Your task to perform on an android device: Open calendar and show me the fourth week of next month Image 0: 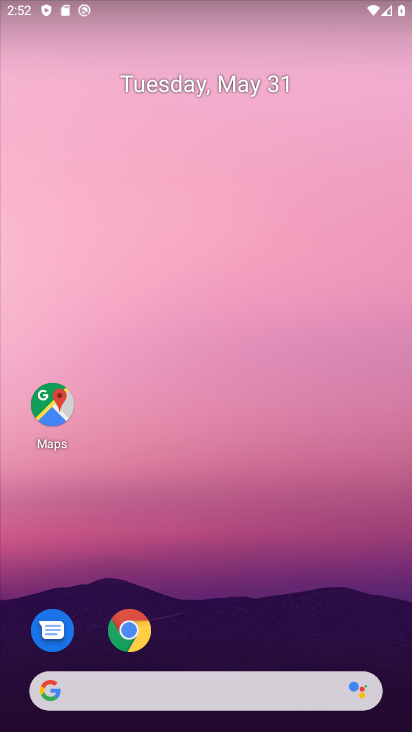
Step 0: click (235, 97)
Your task to perform on an android device: Open calendar and show me the fourth week of next month Image 1: 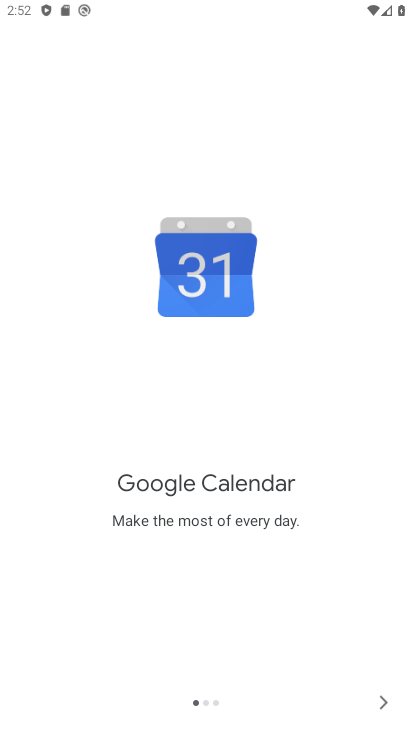
Step 1: click (379, 692)
Your task to perform on an android device: Open calendar and show me the fourth week of next month Image 2: 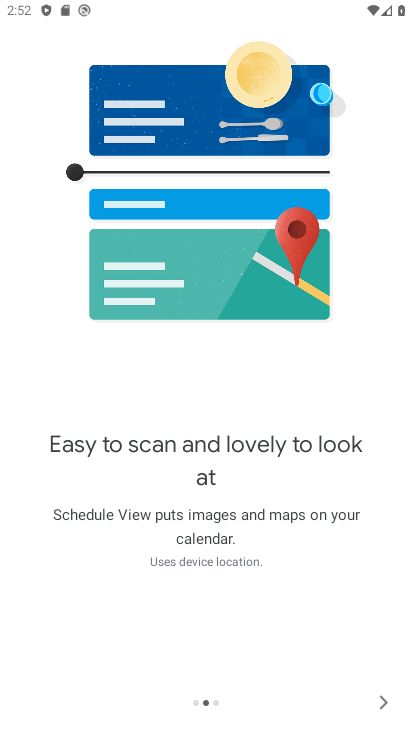
Step 2: click (379, 692)
Your task to perform on an android device: Open calendar and show me the fourth week of next month Image 3: 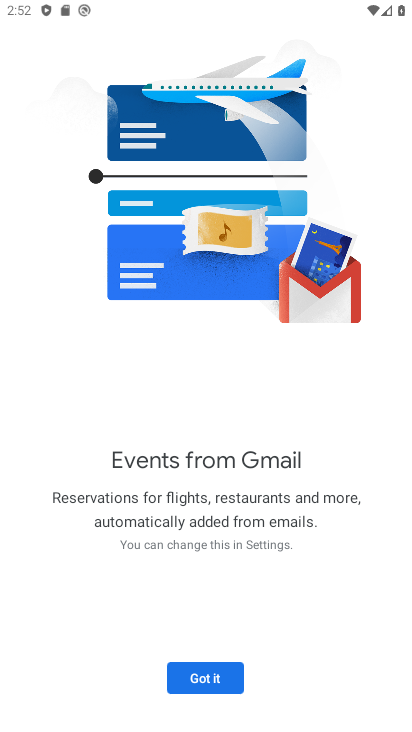
Step 3: click (192, 667)
Your task to perform on an android device: Open calendar and show me the fourth week of next month Image 4: 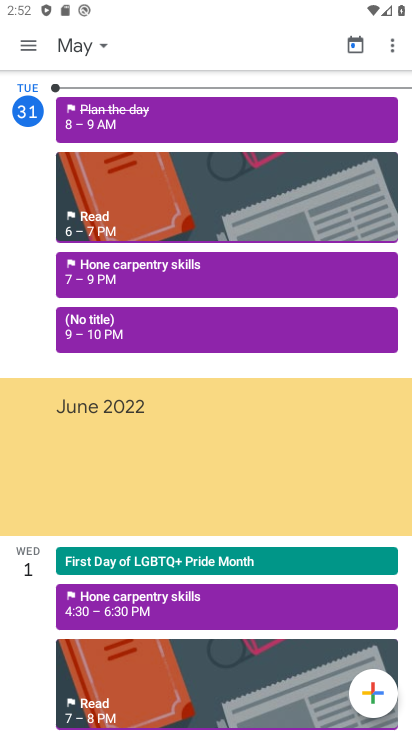
Step 4: click (37, 51)
Your task to perform on an android device: Open calendar and show me the fourth week of next month Image 5: 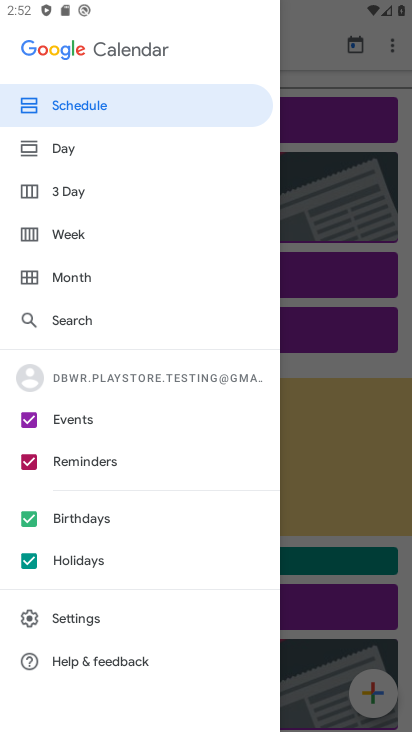
Step 5: click (70, 282)
Your task to perform on an android device: Open calendar and show me the fourth week of next month Image 6: 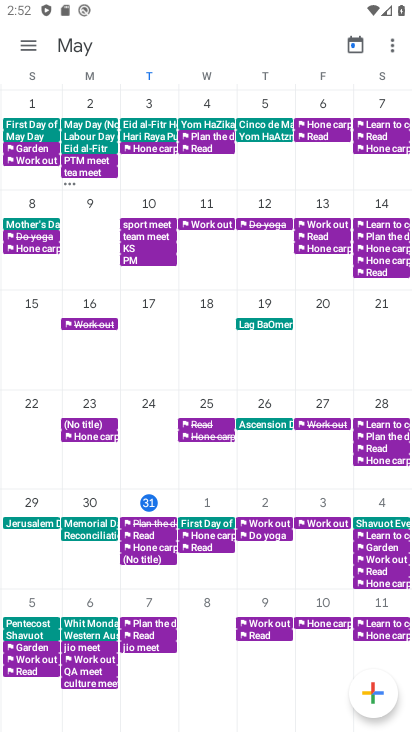
Step 6: click (94, 46)
Your task to perform on an android device: Open calendar and show me the fourth week of next month Image 7: 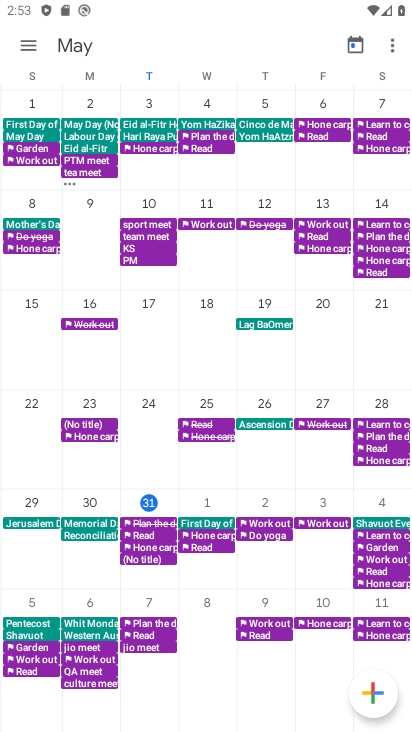
Step 7: click (83, 44)
Your task to perform on an android device: Open calendar and show me the fourth week of next month Image 8: 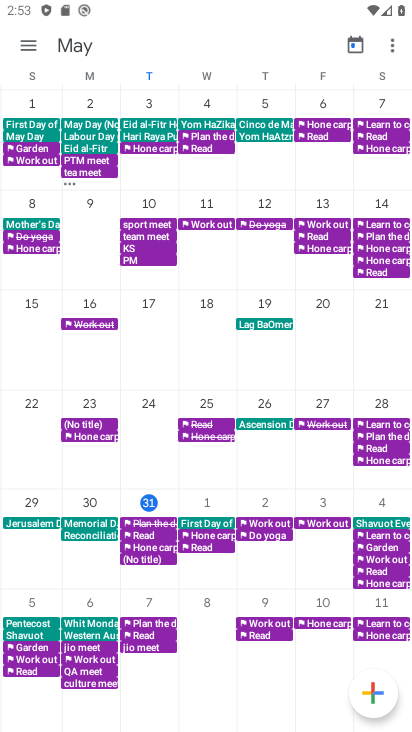
Step 8: click (83, 44)
Your task to perform on an android device: Open calendar and show me the fourth week of next month Image 9: 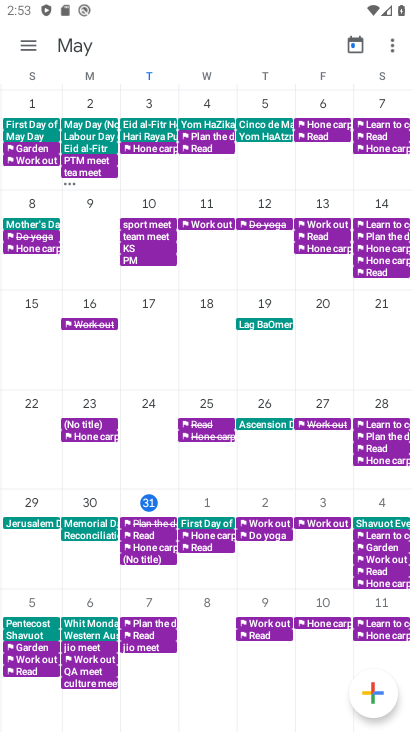
Step 9: click (83, 44)
Your task to perform on an android device: Open calendar and show me the fourth week of next month Image 10: 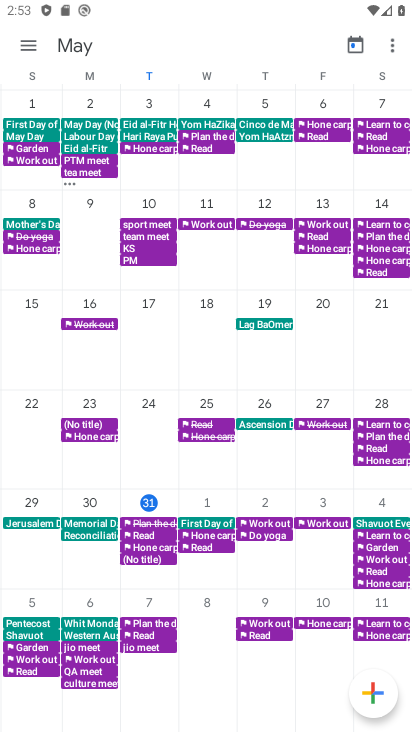
Step 10: click (89, 58)
Your task to perform on an android device: Open calendar and show me the fourth week of next month Image 11: 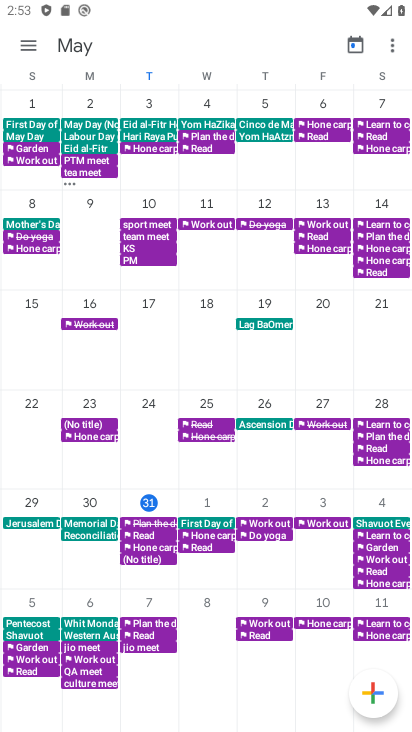
Step 11: click (89, 58)
Your task to perform on an android device: Open calendar and show me the fourth week of next month Image 12: 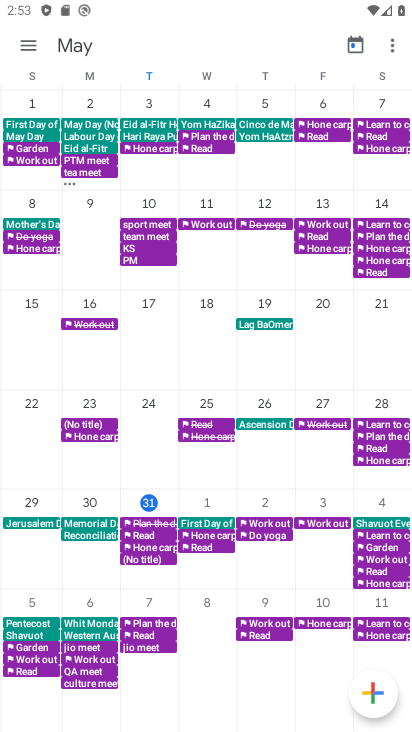
Step 12: click (92, 60)
Your task to perform on an android device: Open calendar and show me the fourth week of next month Image 13: 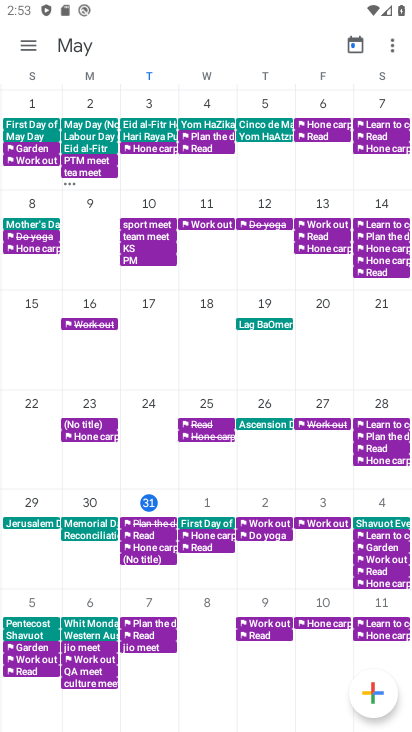
Step 13: click (82, 50)
Your task to perform on an android device: Open calendar and show me the fourth week of next month Image 14: 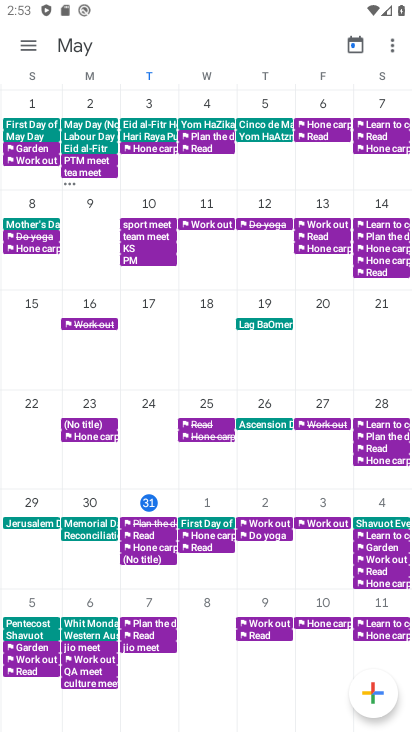
Step 14: click (82, 50)
Your task to perform on an android device: Open calendar and show me the fourth week of next month Image 15: 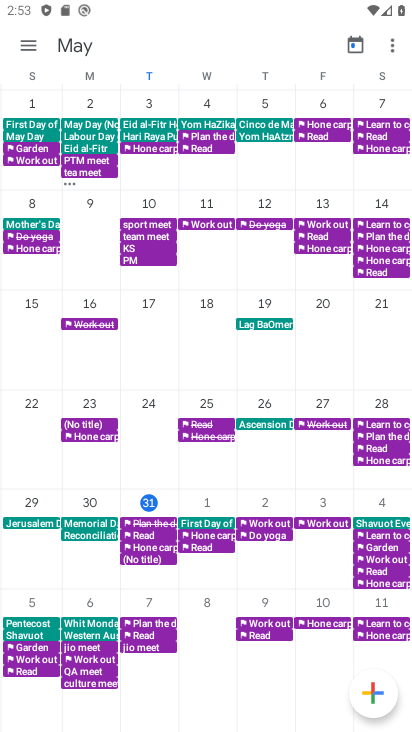
Step 15: click (82, 50)
Your task to perform on an android device: Open calendar and show me the fourth week of next month Image 16: 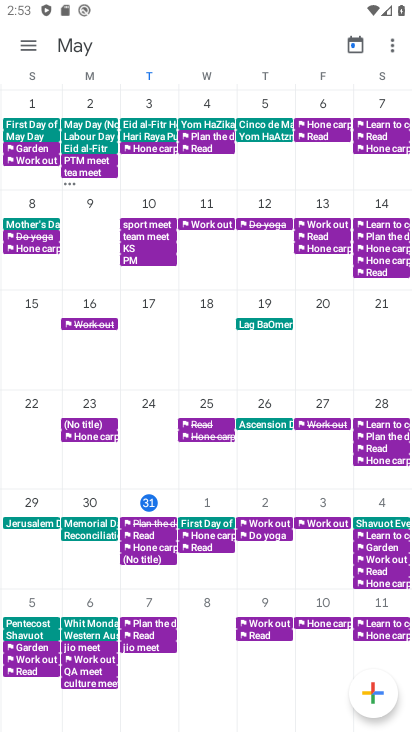
Step 16: click (82, 50)
Your task to perform on an android device: Open calendar and show me the fourth week of next month Image 17: 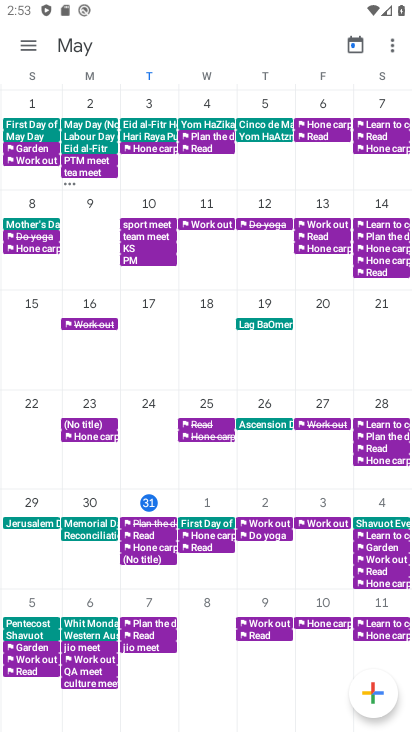
Step 17: click (82, 50)
Your task to perform on an android device: Open calendar and show me the fourth week of next month Image 18: 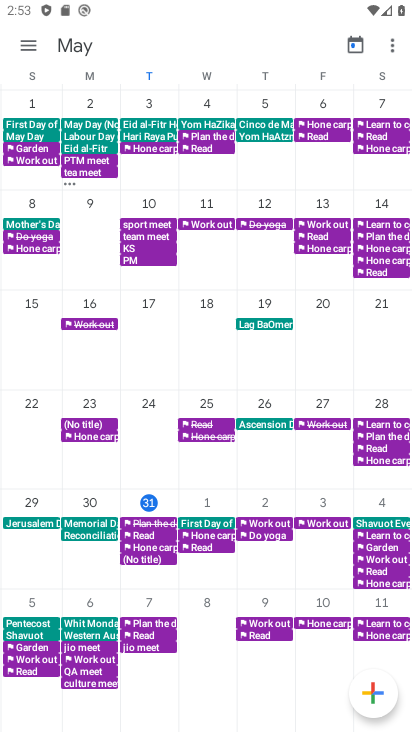
Step 18: click (110, 39)
Your task to perform on an android device: Open calendar and show me the fourth week of next month Image 19: 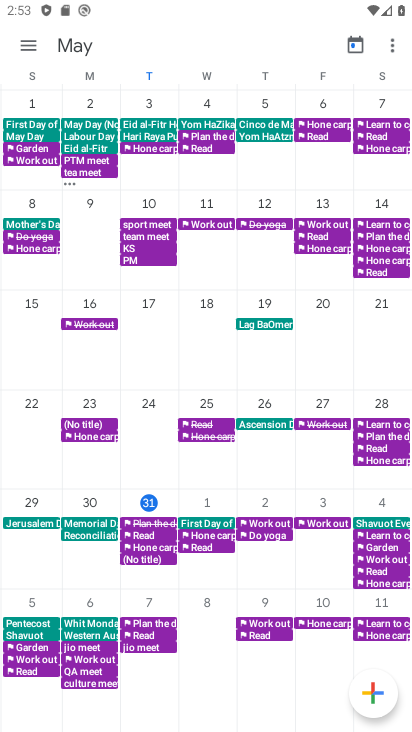
Step 19: click (352, 56)
Your task to perform on an android device: Open calendar and show me the fourth week of next month Image 20: 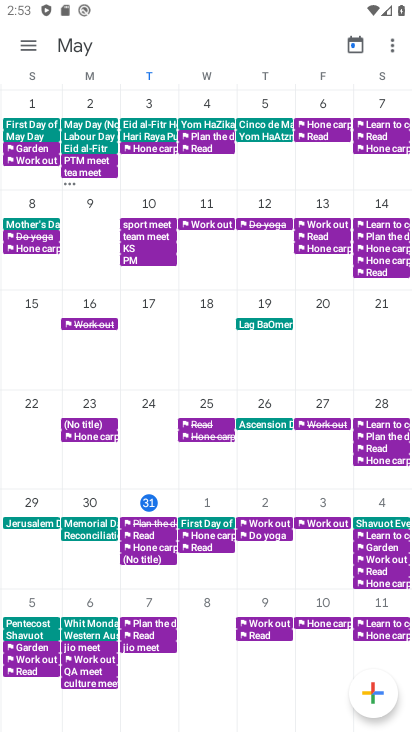
Step 20: click (354, 50)
Your task to perform on an android device: Open calendar and show me the fourth week of next month Image 21: 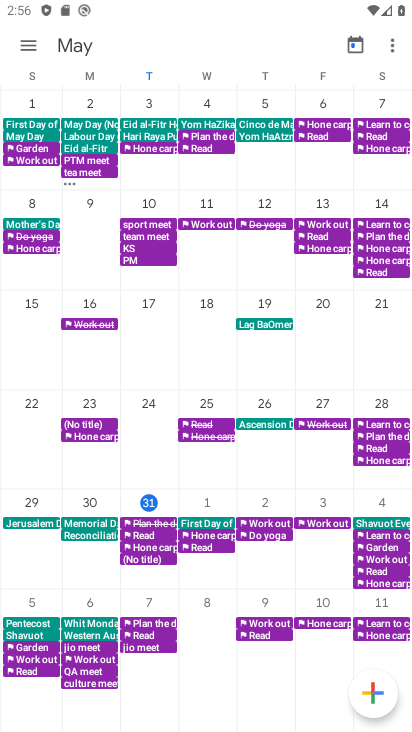
Step 21: click (96, 46)
Your task to perform on an android device: Open calendar and show me the fourth week of next month Image 22: 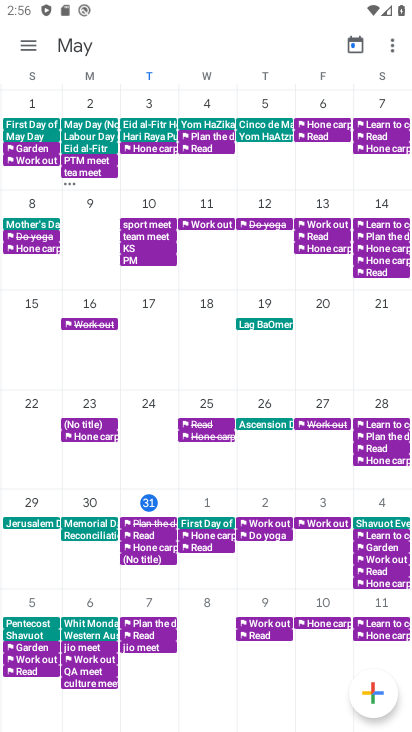
Step 22: click (96, 46)
Your task to perform on an android device: Open calendar and show me the fourth week of next month Image 23: 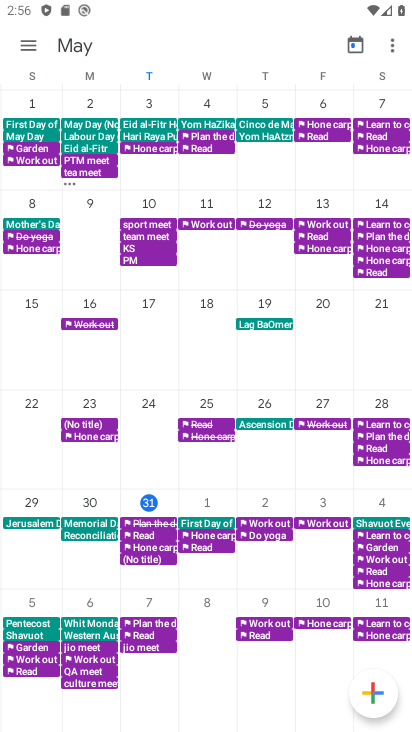
Step 23: task complete